Your task to perform on an android device: Search for pizza restaurants on Maps Image 0: 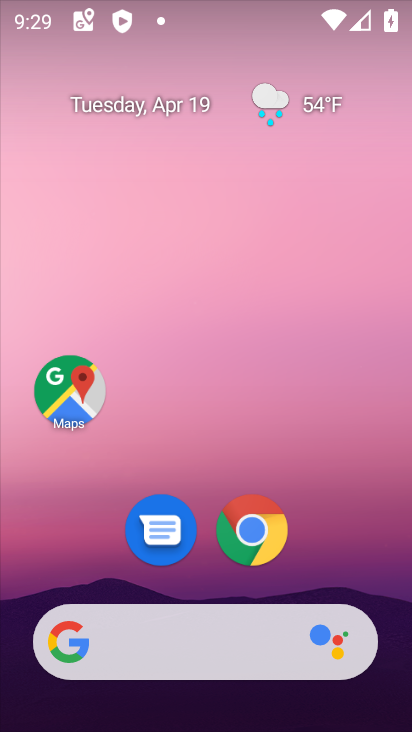
Step 0: click (63, 390)
Your task to perform on an android device: Search for pizza restaurants on Maps Image 1: 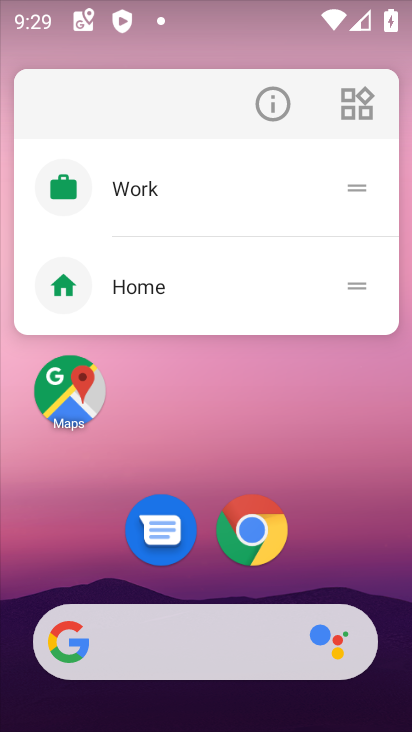
Step 1: click (63, 390)
Your task to perform on an android device: Search for pizza restaurants on Maps Image 2: 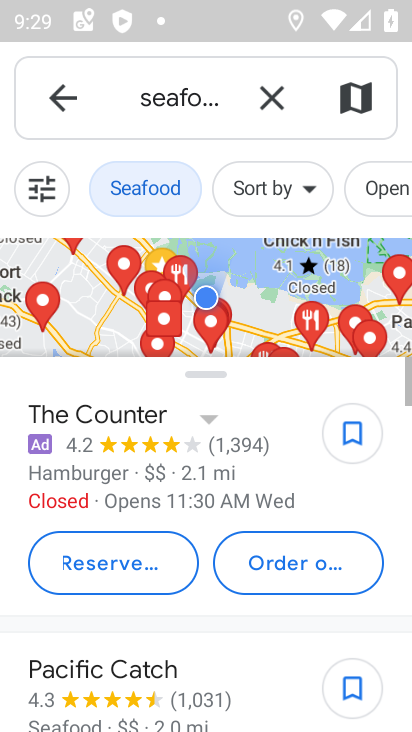
Step 2: click (266, 89)
Your task to perform on an android device: Search for pizza restaurants on Maps Image 3: 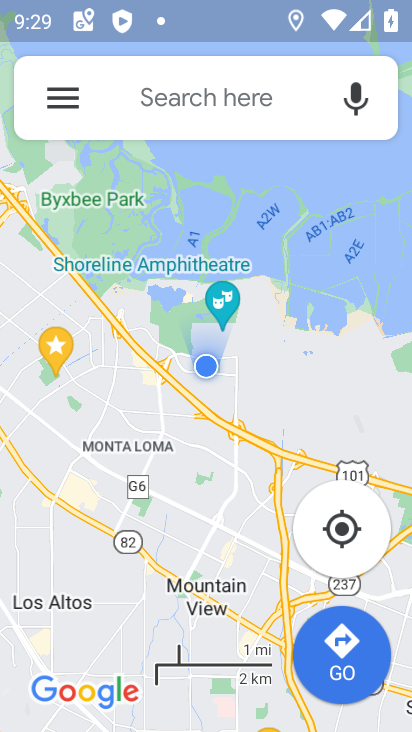
Step 3: click (152, 105)
Your task to perform on an android device: Search for pizza restaurants on Maps Image 4: 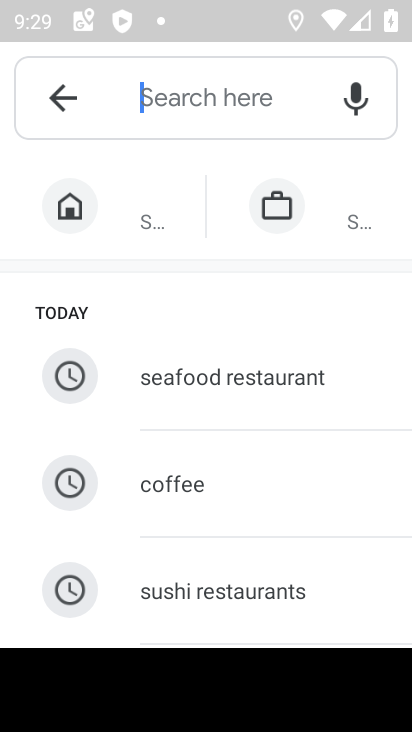
Step 4: drag from (247, 465) to (261, 253)
Your task to perform on an android device: Search for pizza restaurants on Maps Image 5: 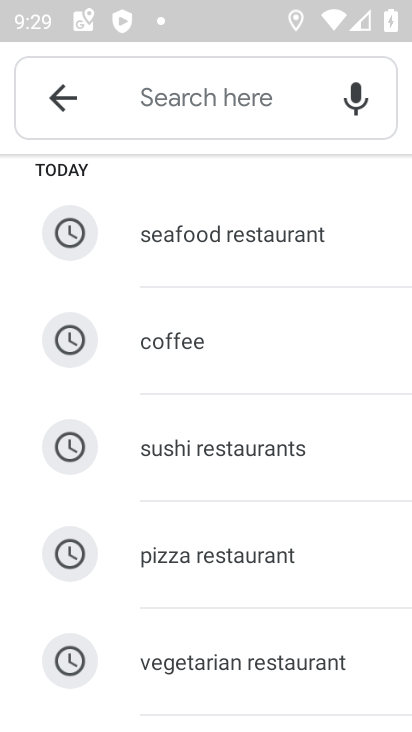
Step 5: click (206, 559)
Your task to perform on an android device: Search for pizza restaurants on Maps Image 6: 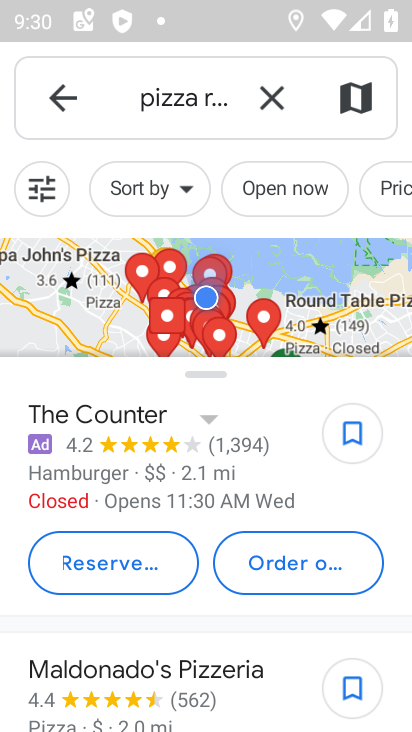
Step 6: task complete